Your task to perform on an android device: change alarm snooze length Image 0: 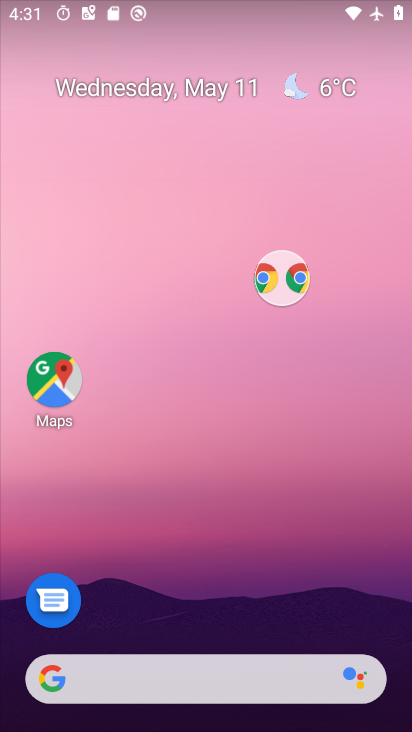
Step 0: drag from (312, 637) to (263, 134)
Your task to perform on an android device: change alarm snooze length Image 1: 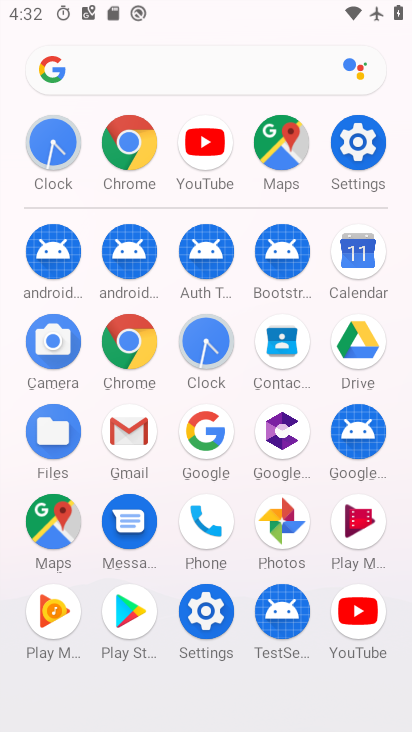
Step 1: click (203, 353)
Your task to perform on an android device: change alarm snooze length Image 2: 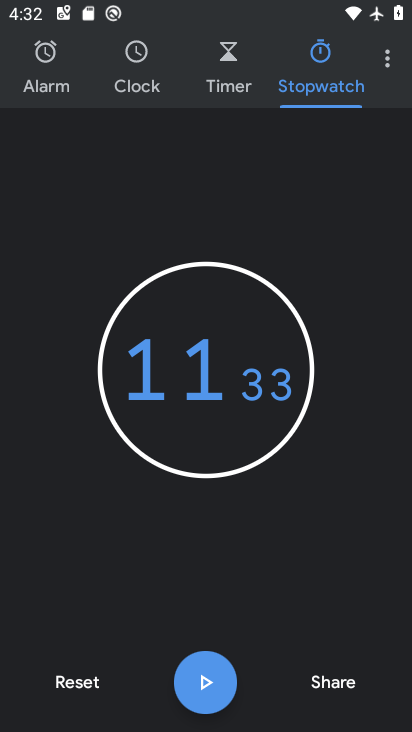
Step 2: click (383, 57)
Your task to perform on an android device: change alarm snooze length Image 3: 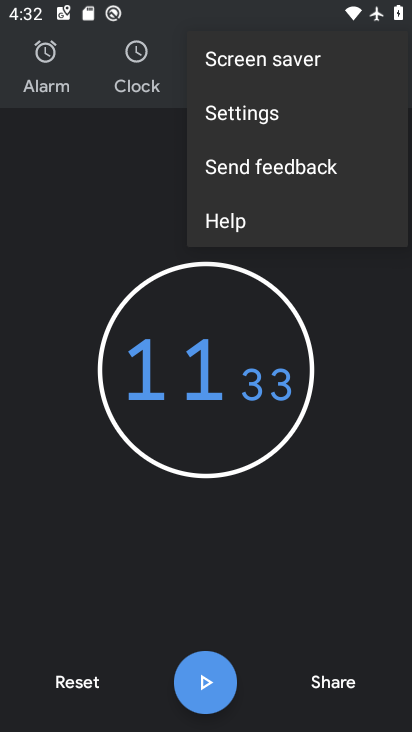
Step 3: click (258, 116)
Your task to perform on an android device: change alarm snooze length Image 4: 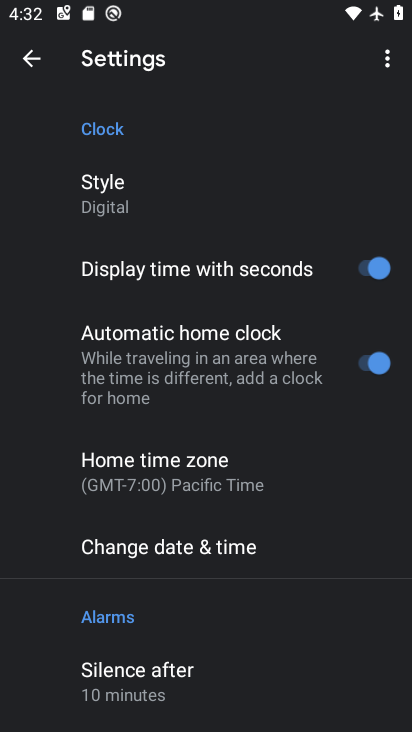
Step 4: drag from (226, 659) to (150, 102)
Your task to perform on an android device: change alarm snooze length Image 5: 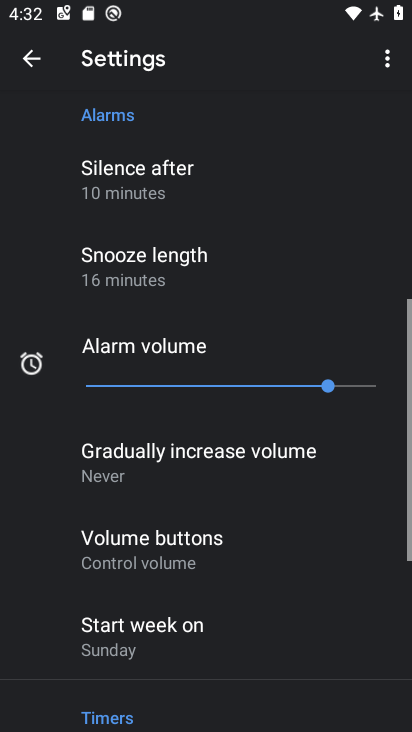
Step 5: drag from (232, 485) to (224, 109)
Your task to perform on an android device: change alarm snooze length Image 6: 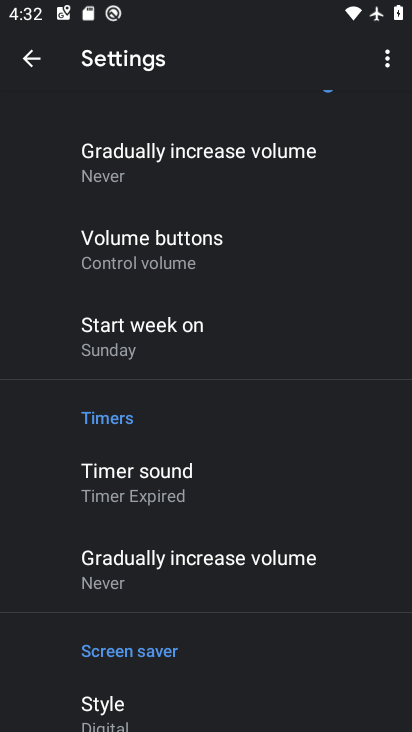
Step 6: drag from (189, 593) to (125, 240)
Your task to perform on an android device: change alarm snooze length Image 7: 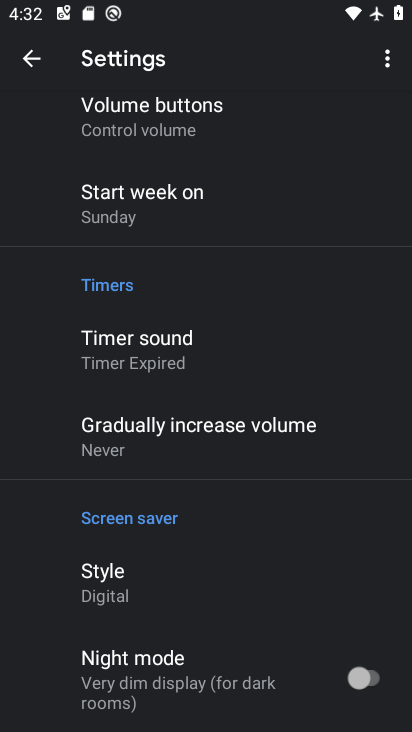
Step 7: drag from (163, 517) to (111, 104)
Your task to perform on an android device: change alarm snooze length Image 8: 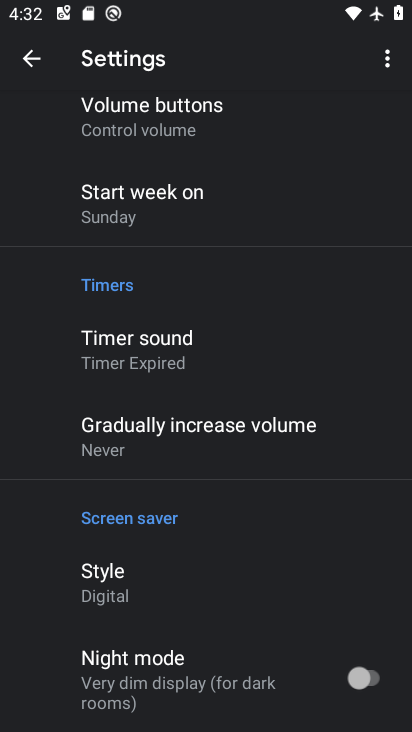
Step 8: drag from (158, 177) to (126, 579)
Your task to perform on an android device: change alarm snooze length Image 9: 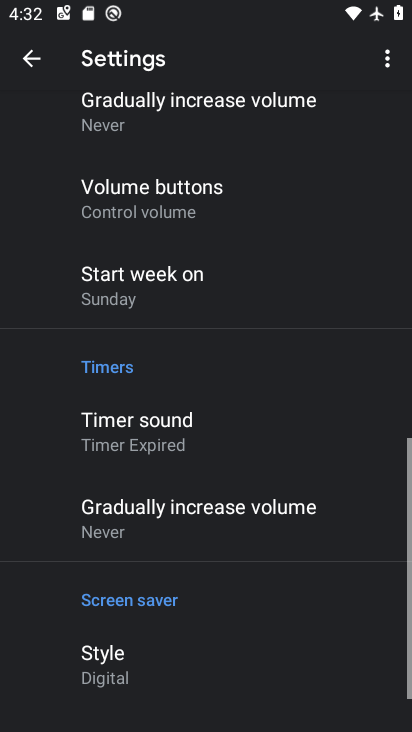
Step 9: drag from (148, 201) to (163, 519)
Your task to perform on an android device: change alarm snooze length Image 10: 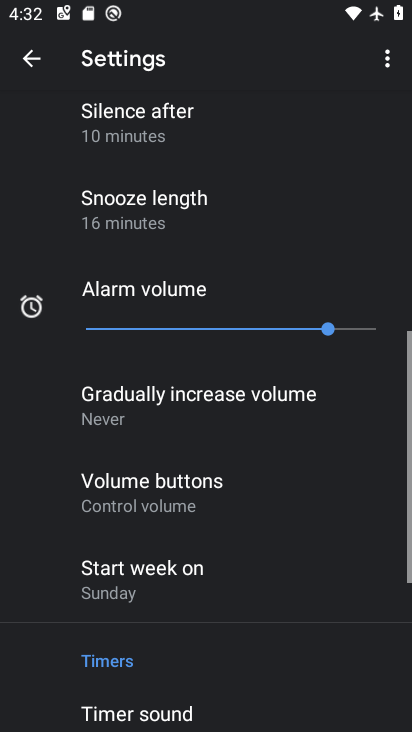
Step 10: drag from (124, 146) to (152, 611)
Your task to perform on an android device: change alarm snooze length Image 11: 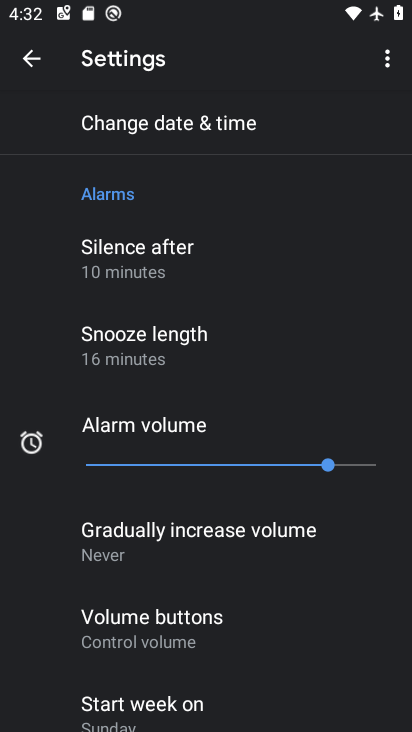
Step 11: click (146, 339)
Your task to perform on an android device: change alarm snooze length Image 12: 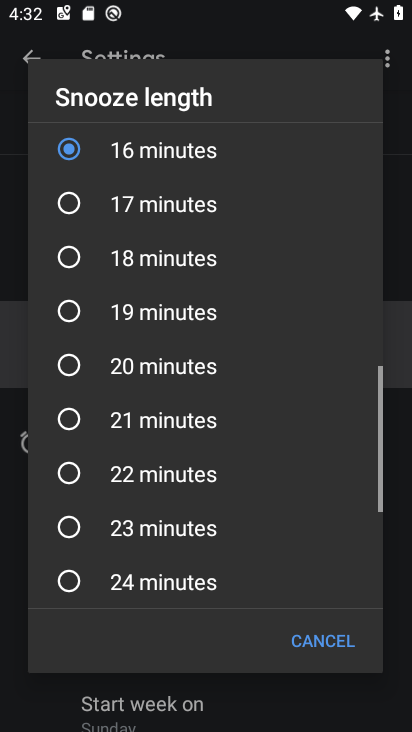
Step 12: click (139, 351)
Your task to perform on an android device: change alarm snooze length Image 13: 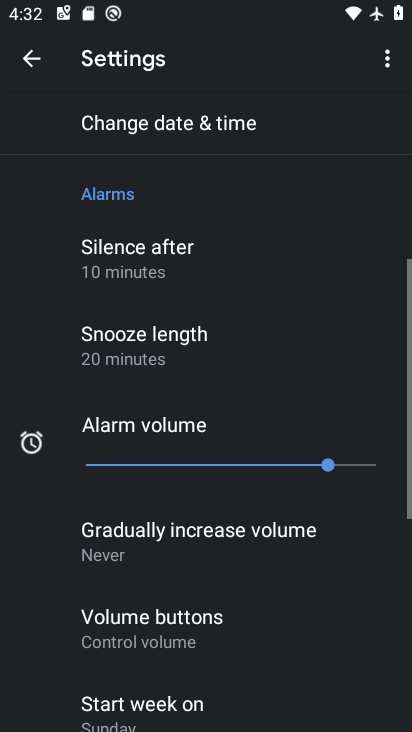
Step 13: click (139, 354)
Your task to perform on an android device: change alarm snooze length Image 14: 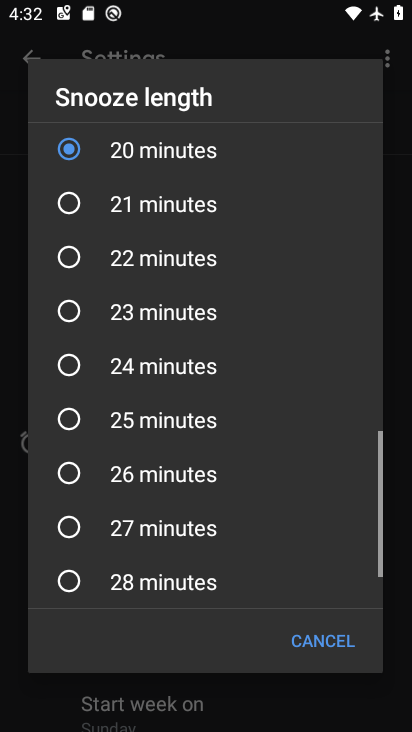
Step 14: click (65, 361)
Your task to perform on an android device: change alarm snooze length Image 15: 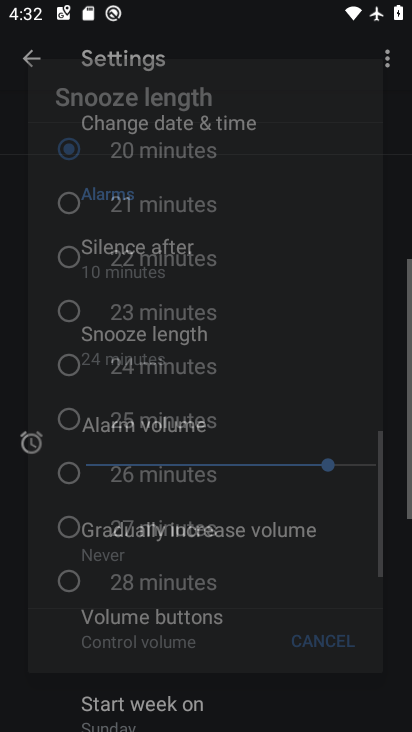
Step 15: click (69, 372)
Your task to perform on an android device: change alarm snooze length Image 16: 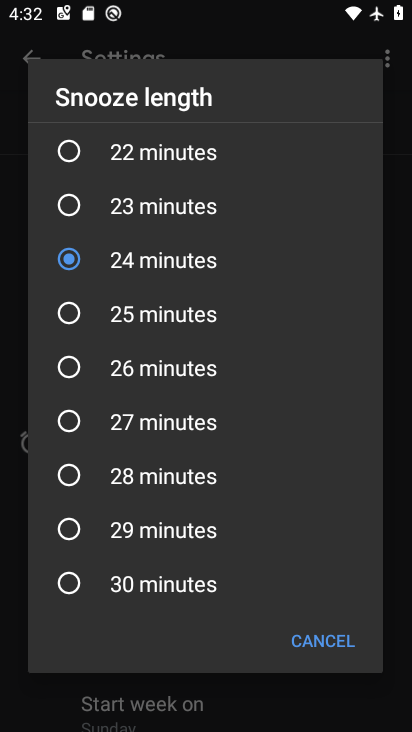
Step 16: click (318, 631)
Your task to perform on an android device: change alarm snooze length Image 17: 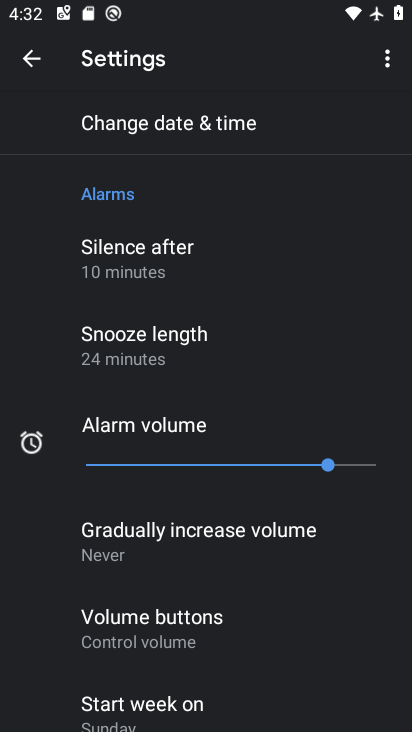
Step 17: task complete